Your task to perform on an android device: Do I have any events tomorrow? Image 0: 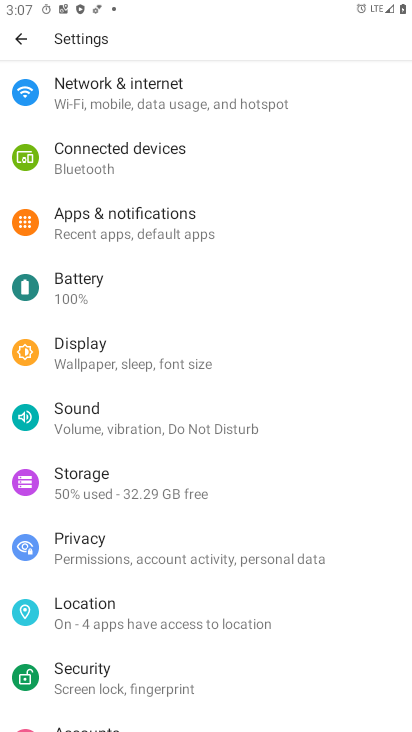
Step 0: press home button
Your task to perform on an android device: Do I have any events tomorrow? Image 1: 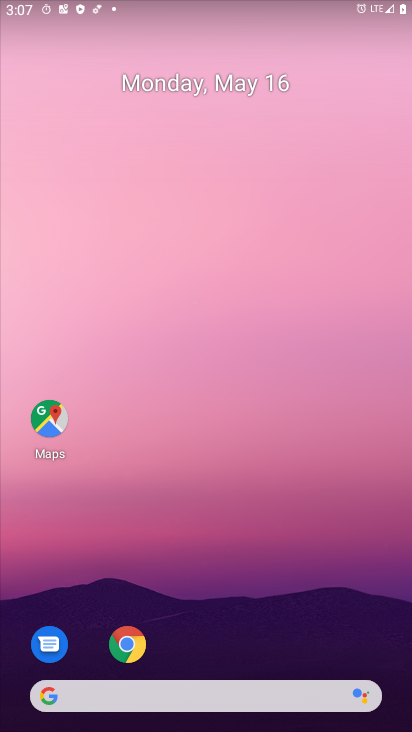
Step 1: drag from (285, 527) to (346, 103)
Your task to perform on an android device: Do I have any events tomorrow? Image 2: 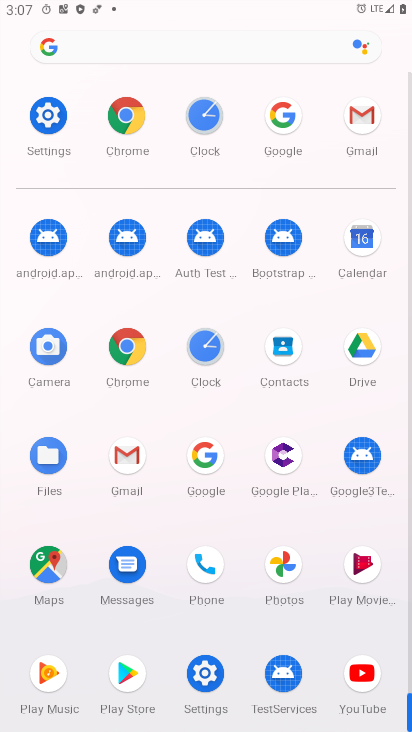
Step 2: drag from (203, 535) to (248, 314)
Your task to perform on an android device: Do I have any events tomorrow? Image 3: 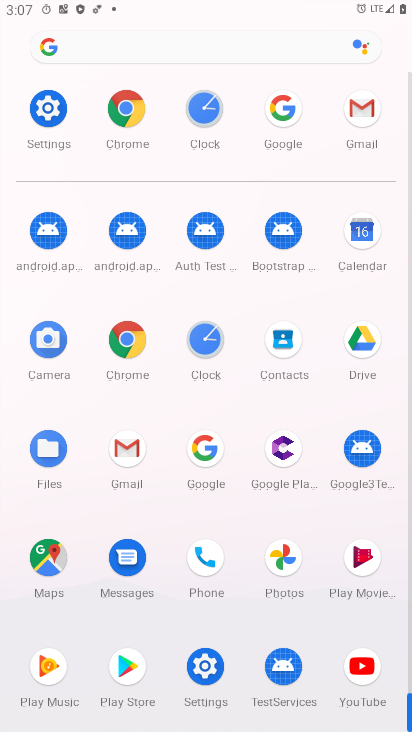
Step 3: click (373, 233)
Your task to perform on an android device: Do I have any events tomorrow? Image 4: 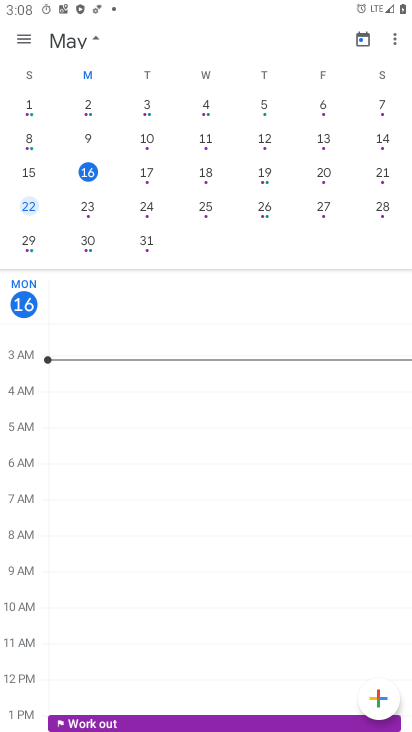
Step 4: click (154, 171)
Your task to perform on an android device: Do I have any events tomorrow? Image 5: 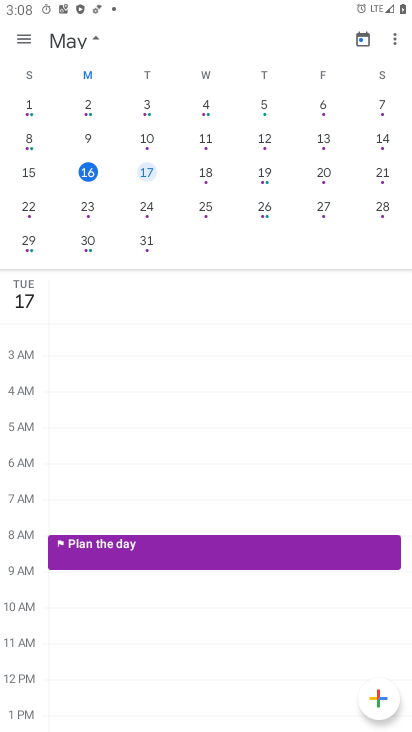
Step 5: click (141, 172)
Your task to perform on an android device: Do I have any events tomorrow? Image 6: 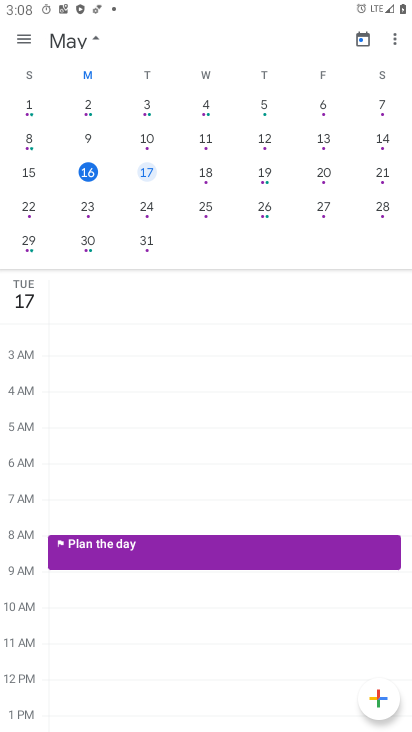
Step 6: task complete